Your task to perform on an android device: Go to Maps Image 0: 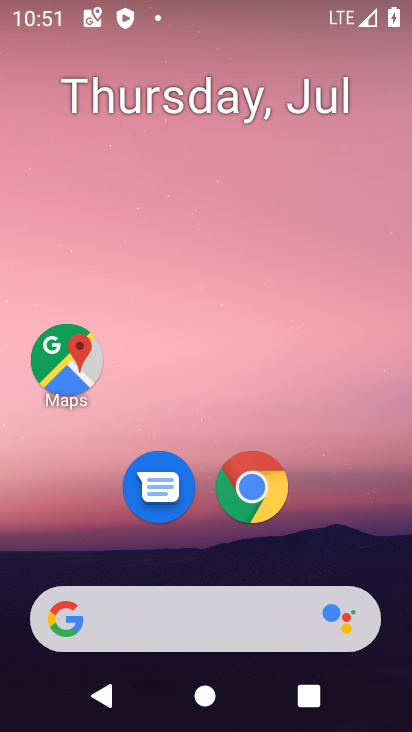
Step 0: click (64, 370)
Your task to perform on an android device: Go to Maps Image 1: 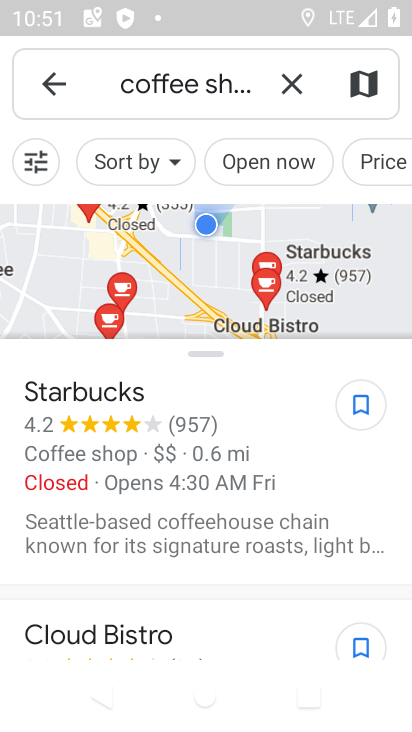
Step 1: task complete